Your task to perform on an android device: Open Google Maps Image 0: 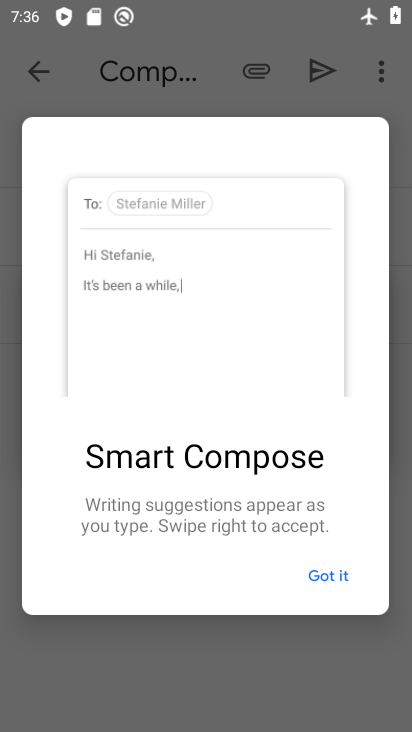
Step 0: press home button
Your task to perform on an android device: Open Google Maps Image 1: 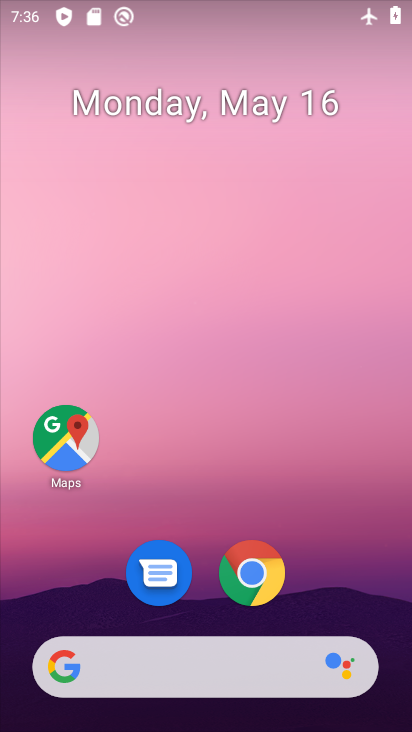
Step 1: drag from (312, 452) to (219, 4)
Your task to perform on an android device: Open Google Maps Image 2: 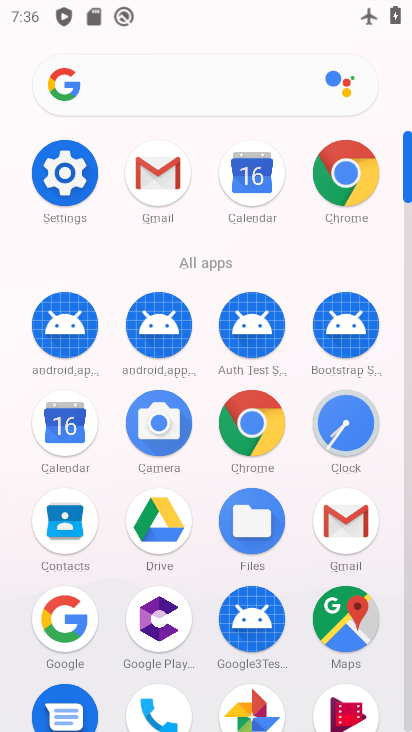
Step 2: drag from (389, 468) to (358, 174)
Your task to perform on an android device: Open Google Maps Image 3: 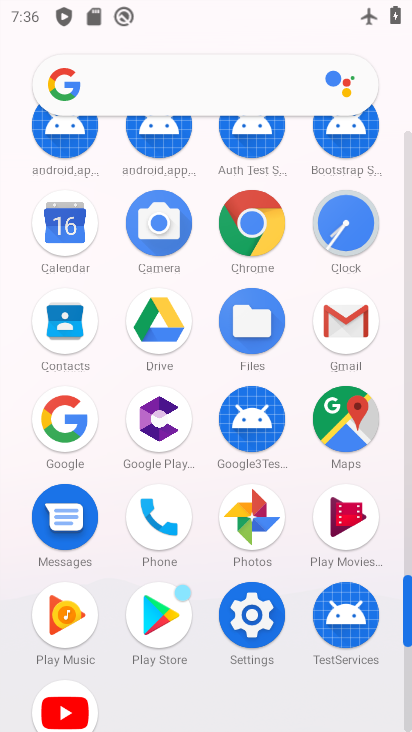
Step 3: click (348, 493)
Your task to perform on an android device: Open Google Maps Image 4: 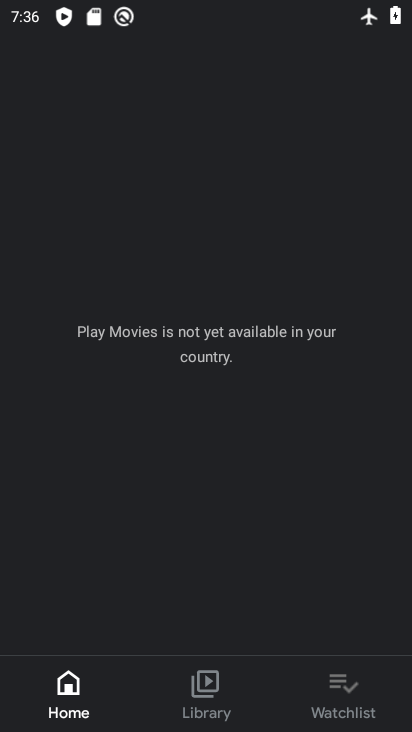
Step 4: task complete